Your task to perform on an android device: Set the phone to "Do not disturb". Image 0: 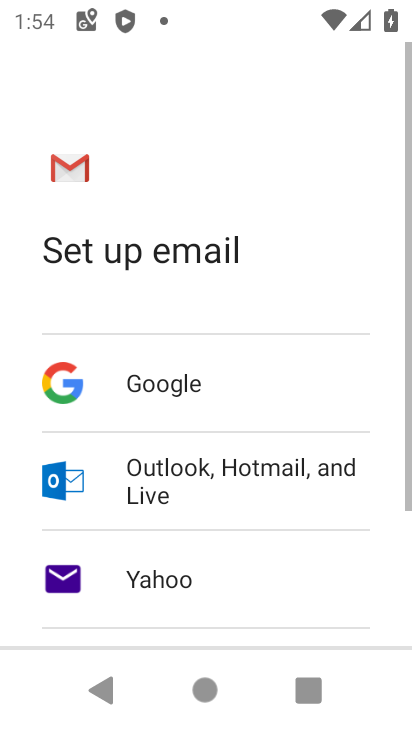
Step 0: drag from (211, 8) to (219, 540)
Your task to perform on an android device: Set the phone to "Do not disturb". Image 1: 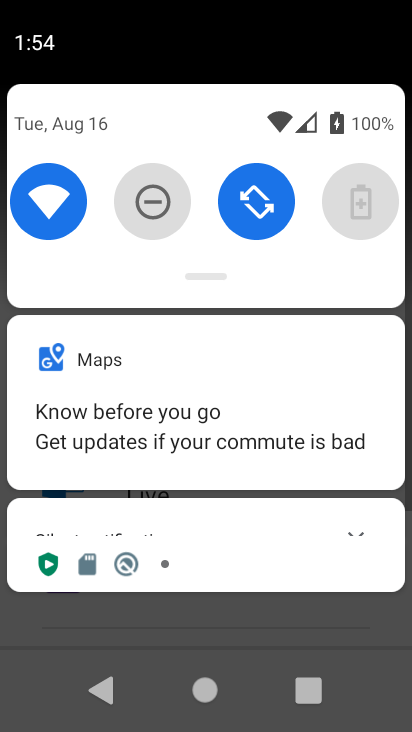
Step 1: click (156, 196)
Your task to perform on an android device: Set the phone to "Do not disturb". Image 2: 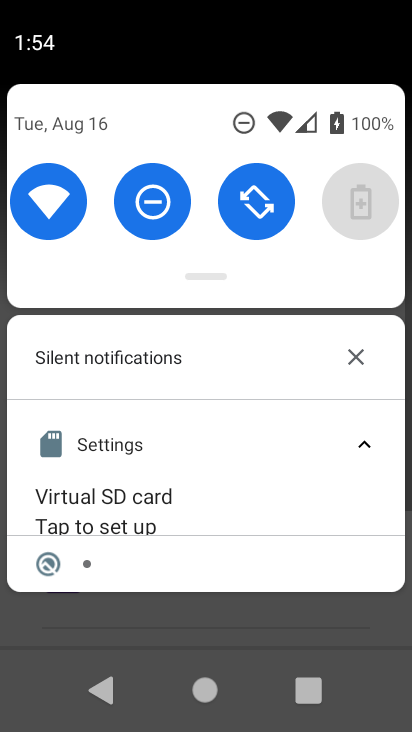
Step 2: task complete